Your task to perform on an android device: toggle sleep mode Image 0: 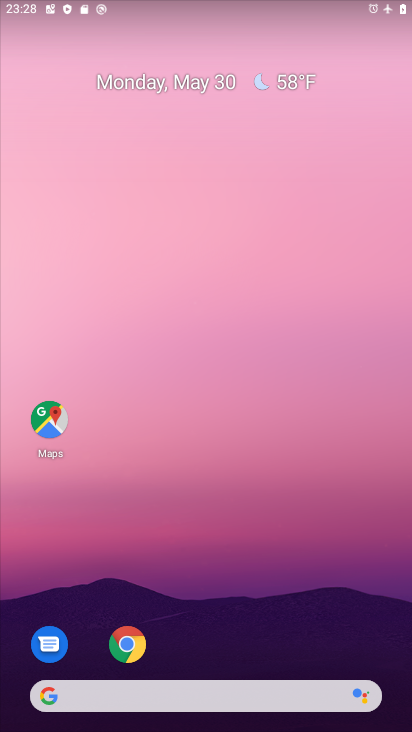
Step 0: drag from (385, 644) to (315, 163)
Your task to perform on an android device: toggle sleep mode Image 1: 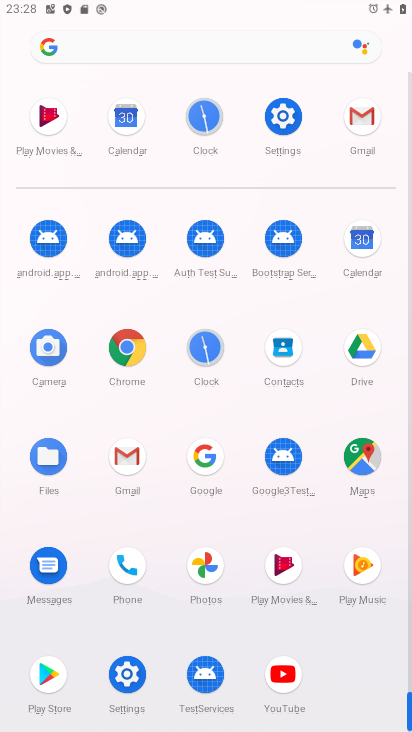
Step 1: click (128, 676)
Your task to perform on an android device: toggle sleep mode Image 2: 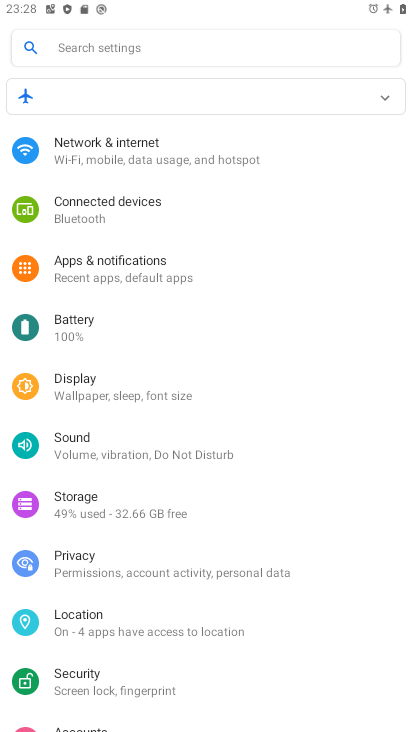
Step 2: click (82, 394)
Your task to perform on an android device: toggle sleep mode Image 3: 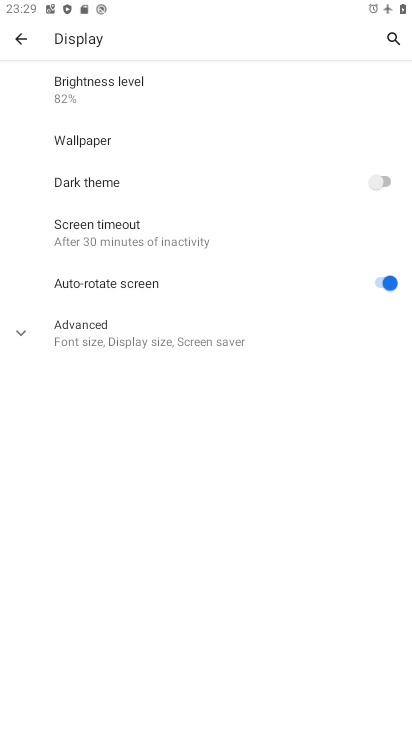
Step 3: click (22, 333)
Your task to perform on an android device: toggle sleep mode Image 4: 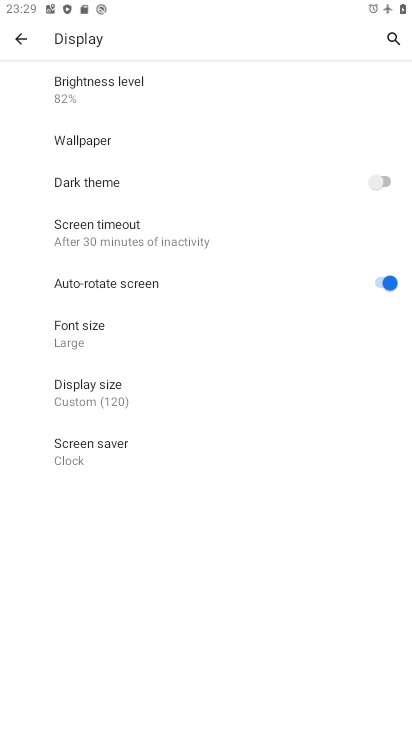
Step 4: task complete